Your task to perform on an android device: set the stopwatch Image 0: 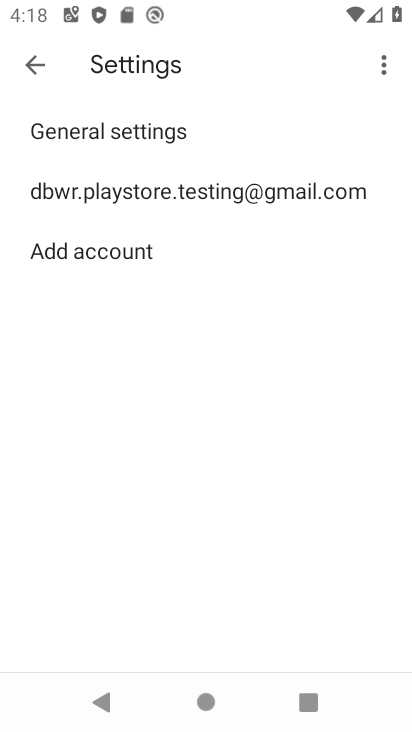
Step 0: press home button
Your task to perform on an android device: set the stopwatch Image 1: 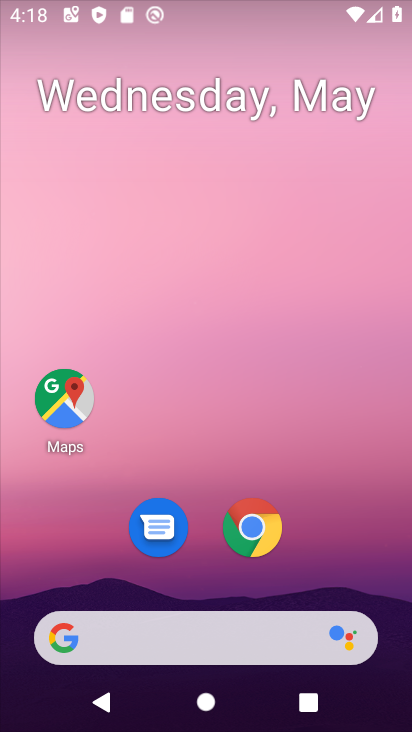
Step 1: drag from (348, 579) to (284, 75)
Your task to perform on an android device: set the stopwatch Image 2: 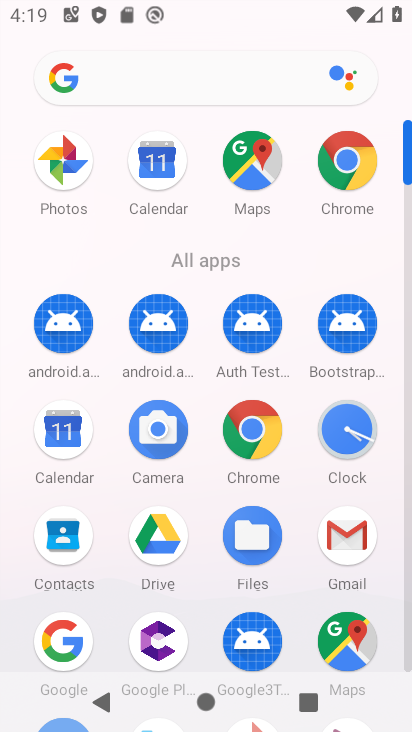
Step 2: click (325, 391)
Your task to perform on an android device: set the stopwatch Image 3: 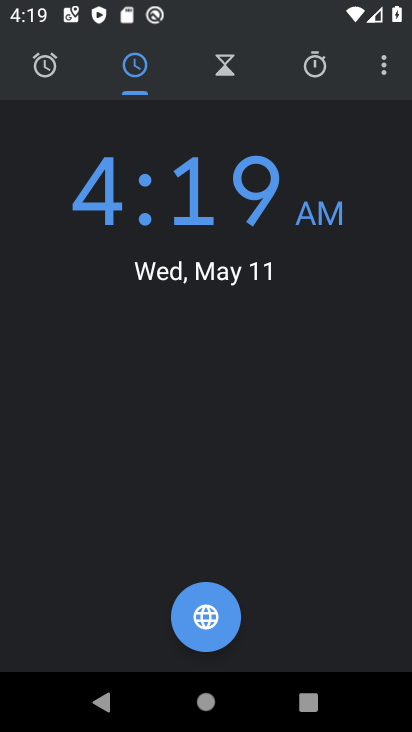
Step 3: click (302, 68)
Your task to perform on an android device: set the stopwatch Image 4: 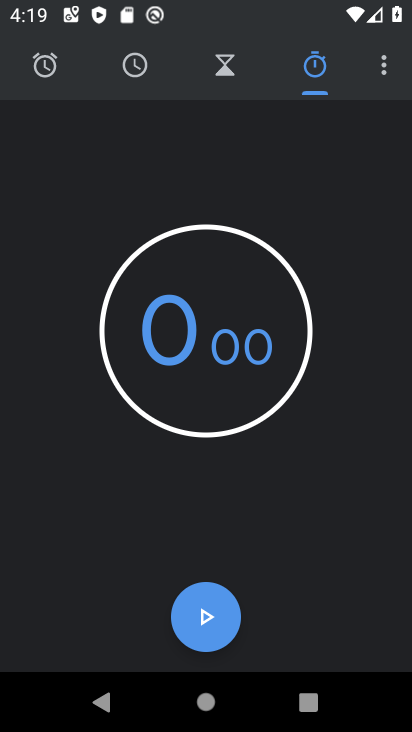
Step 4: click (196, 621)
Your task to perform on an android device: set the stopwatch Image 5: 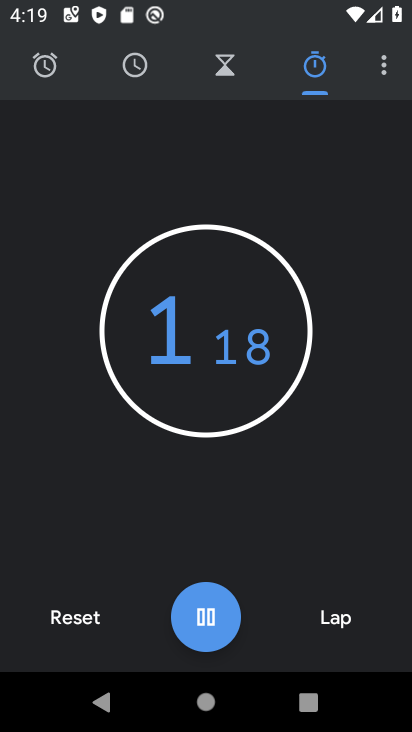
Step 5: task complete